Your task to perform on an android device: Open Google Chrome and click the shortcut for Amazon.com Image 0: 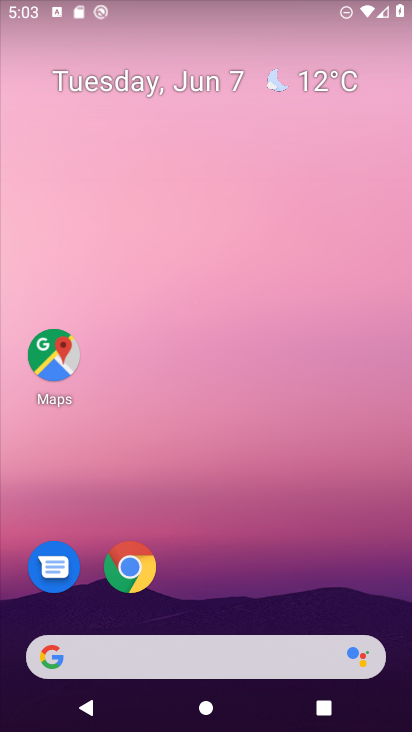
Step 0: drag from (167, 658) to (253, 68)
Your task to perform on an android device: Open Google Chrome and click the shortcut for Amazon.com Image 1: 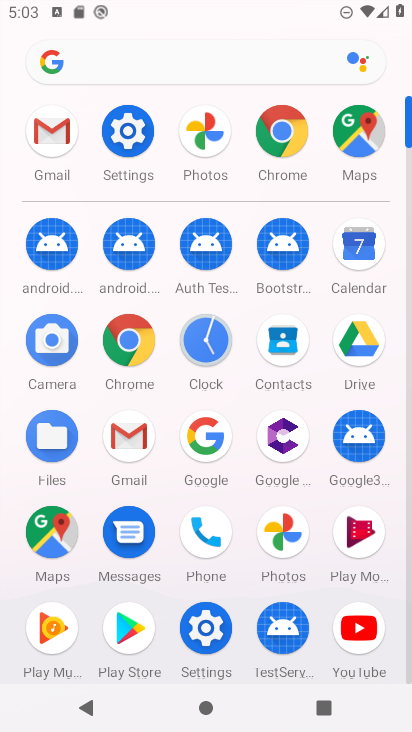
Step 1: click (127, 346)
Your task to perform on an android device: Open Google Chrome and click the shortcut for Amazon.com Image 2: 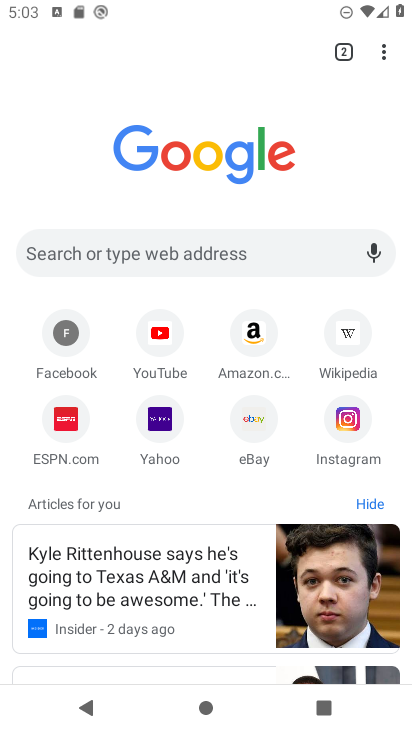
Step 2: click (381, 46)
Your task to perform on an android device: Open Google Chrome and click the shortcut for Amazon.com Image 3: 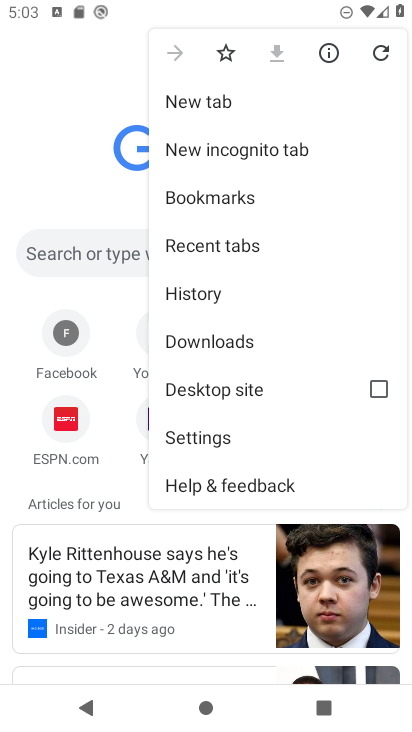
Step 3: click (90, 197)
Your task to perform on an android device: Open Google Chrome and click the shortcut for Amazon.com Image 4: 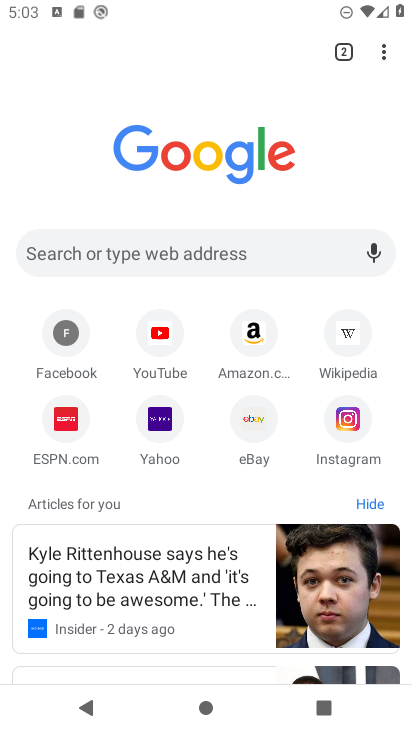
Step 4: click (264, 343)
Your task to perform on an android device: Open Google Chrome and click the shortcut for Amazon.com Image 5: 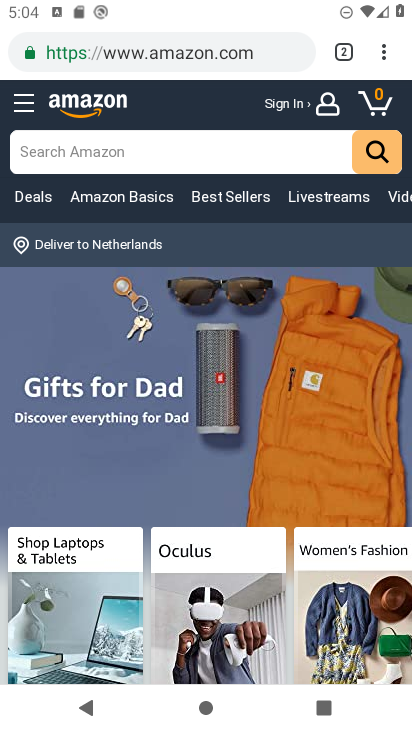
Step 5: click (383, 42)
Your task to perform on an android device: Open Google Chrome and click the shortcut for Amazon.com Image 6: 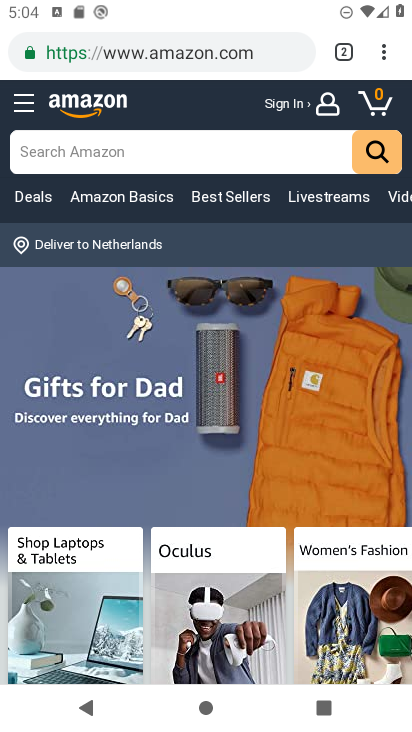
Step 6: drag from (382, 38) to (202, 528)
Your task to perform on an android device: Open Google Chrome and click the shortcut for Amazon.com Image 7: 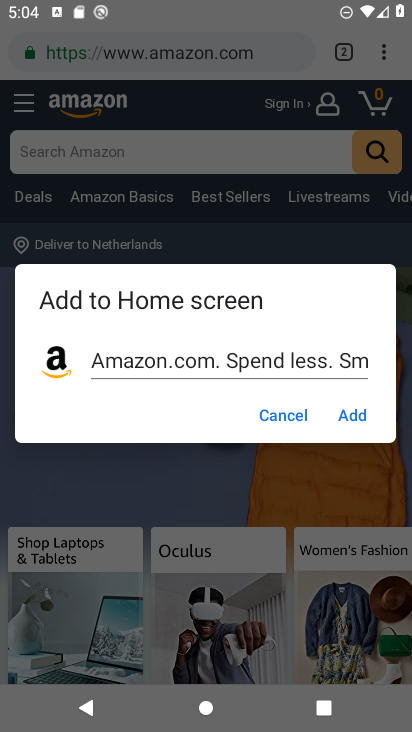
Step 7: click (348, 423)
Your task to perform on an android device: Open Google Chrome and click the shortcut for Amazon.com Image 8: 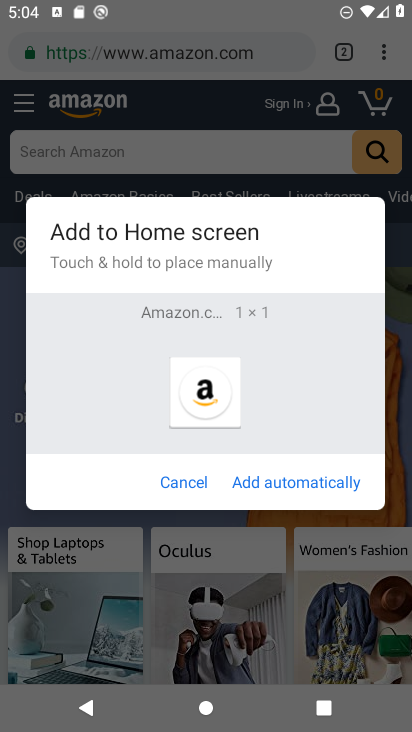
Step 8: click (253, 482)
Your task to perform on an android device: Open Google Chrome and click the shortcut for Amazon.com Image 9: 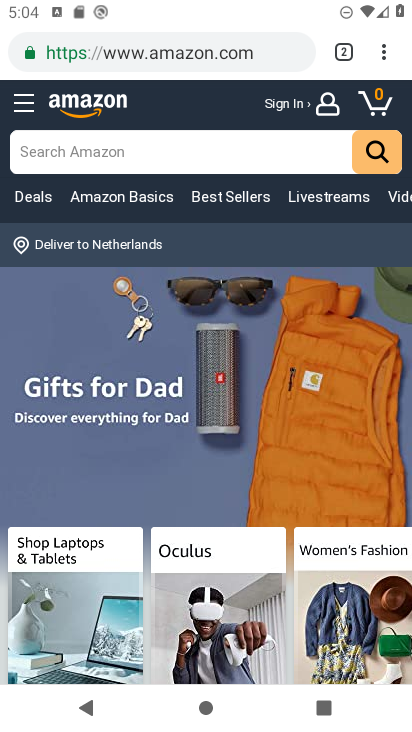
Step 9: task complete